Your task to perform on an android device: set an alarm Image 0: 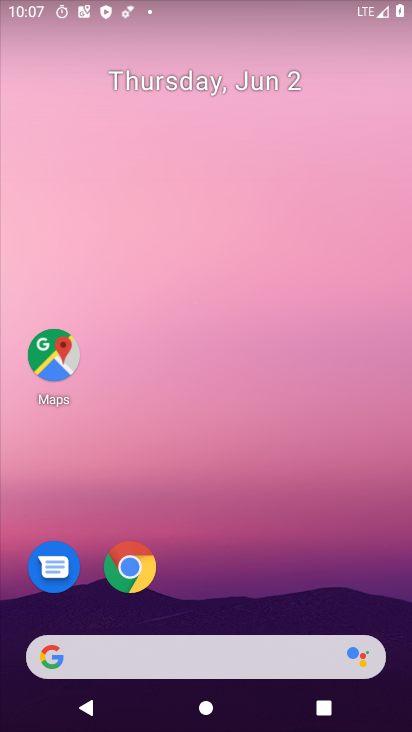
Step 0: drag from (366, 485) to (371, 172)
Your task to perform on an android device: set an alarm Image 1: 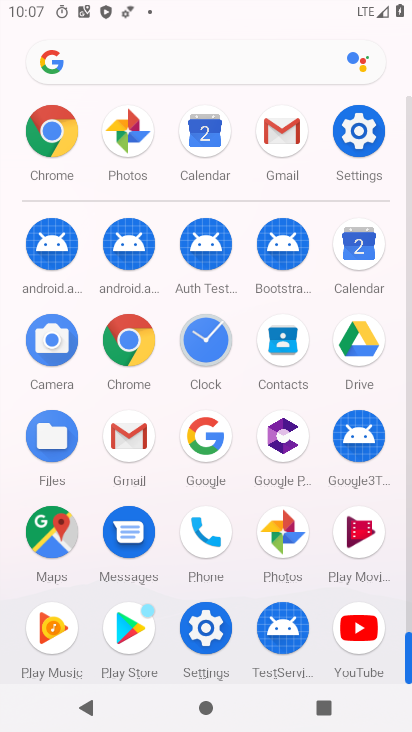
Step 1: click (232, 325)
Your task to perform on an android device: set an alarm Image 2: 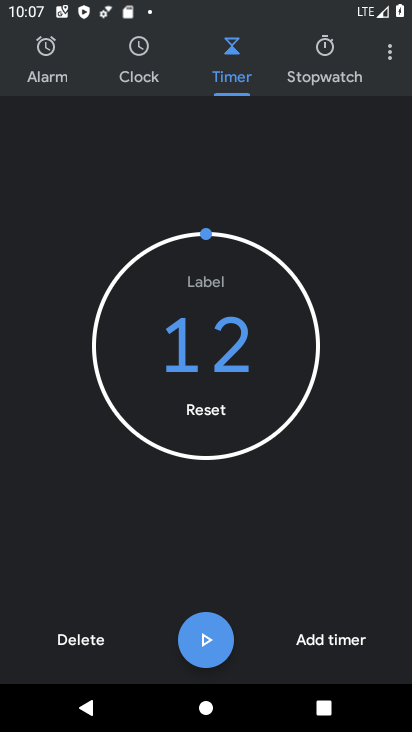
Step 2: click (65, 71)
Your task to perform on an android device: set an alarm Image 3: 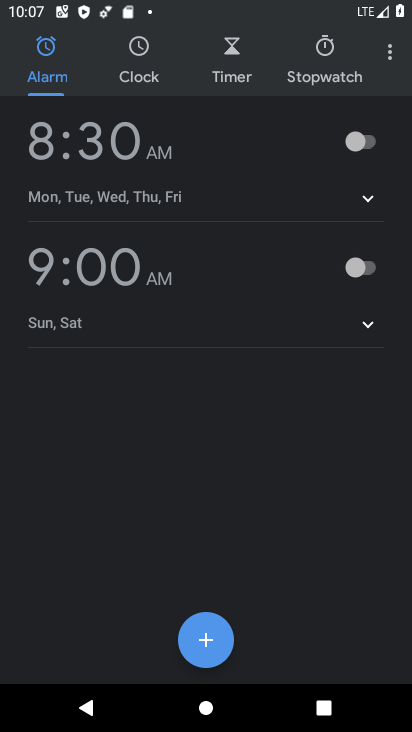
Step 3: click (201, 633)
Your task to perform on an android device: set an alarm Image 4: 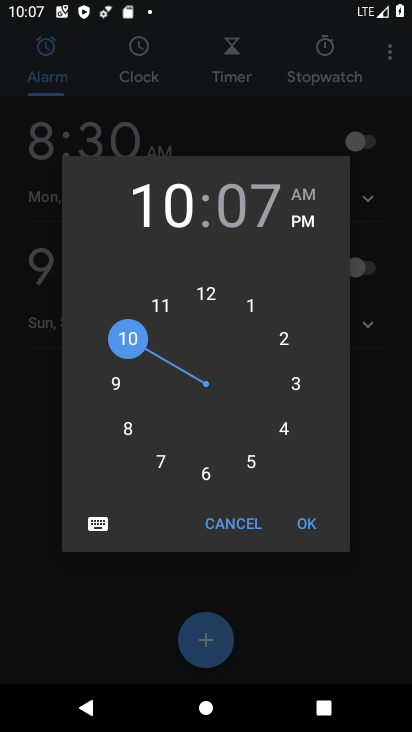
Step 4: click (204, 629)
Your task to perform on an android device: set an alarm Image 5: 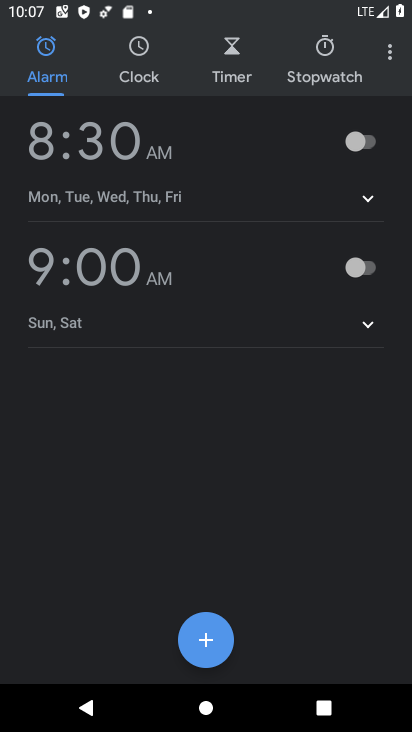
Step 5: click (209, 633)
Your task to perform on an android device: set an alarm Image 6: 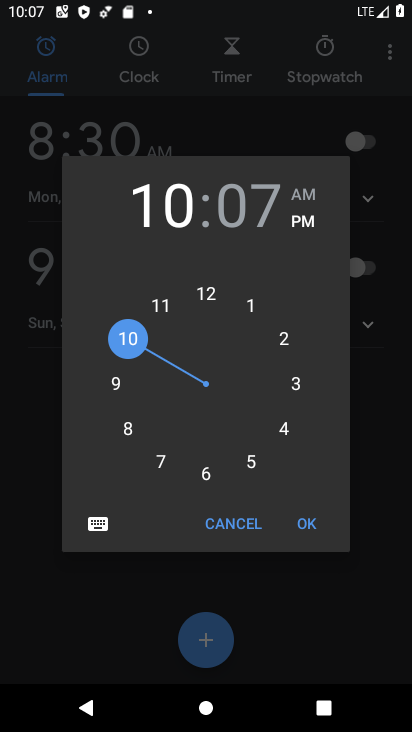
Step 6: click (306, 524)
Your task to perform on an android device: set an alarm Image 7: 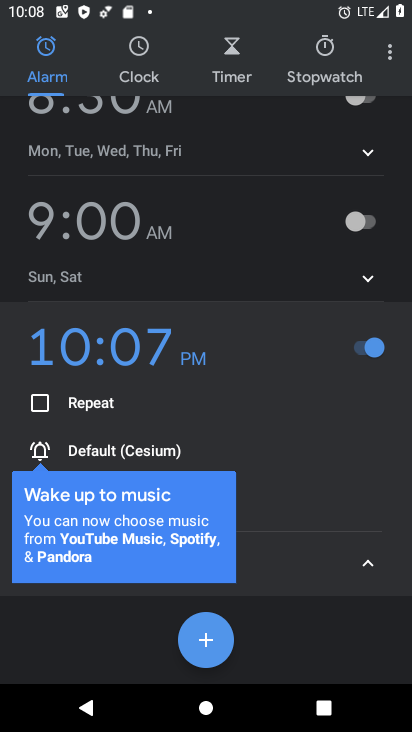
Step 7: task complete